Your task to perform on an android device: turn off translation in the chrome app Image 0: 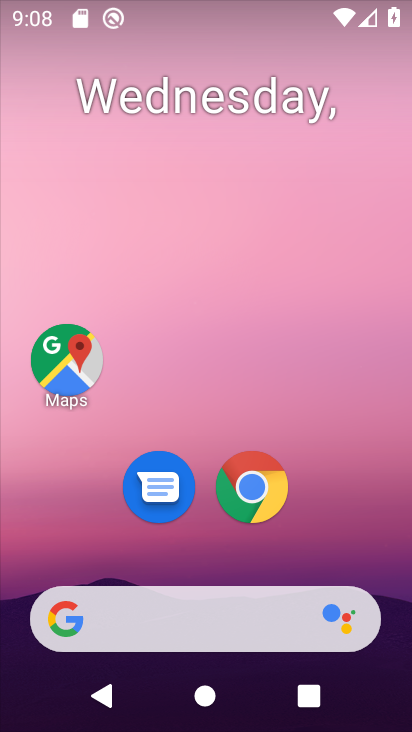
Step 0: click (245, 495)
Your task to perform on an android device: turn off translation in the chrome app Image 1: 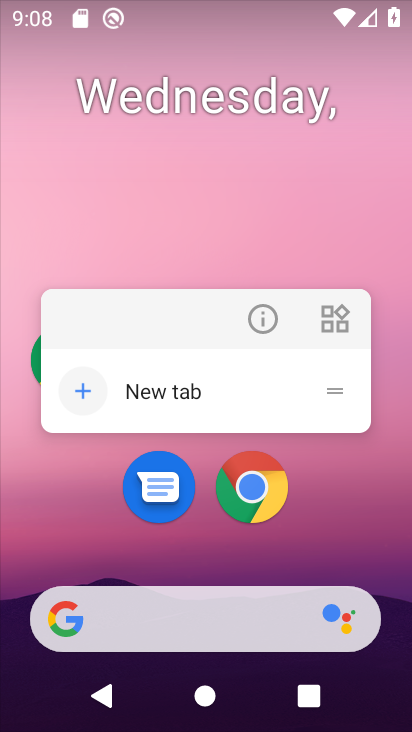
Step 1: click (245, 495)
Your task to perform on an android device: turn off translation in the chrome app Image 2: 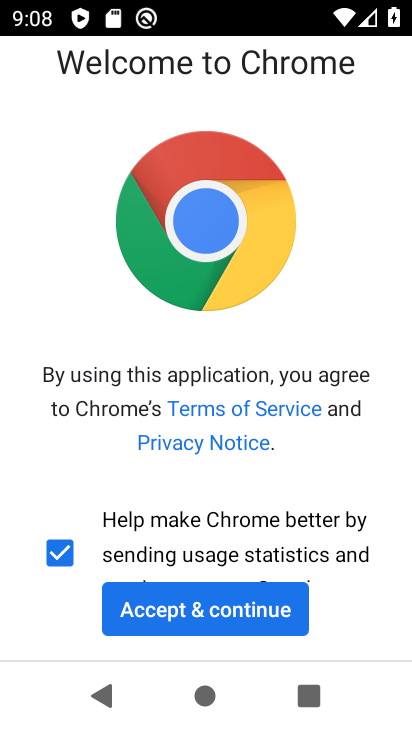
Step 2: click (255, 601)
Your task to perform on an android device: turn off translation in the chrome app Image 3: 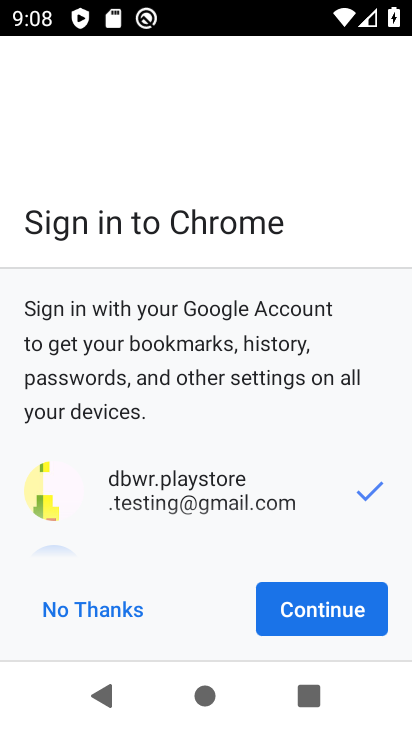
Step 3: click (309, 618)
Your task to perform on an android device: turn off translation in the chrome app Image 4: 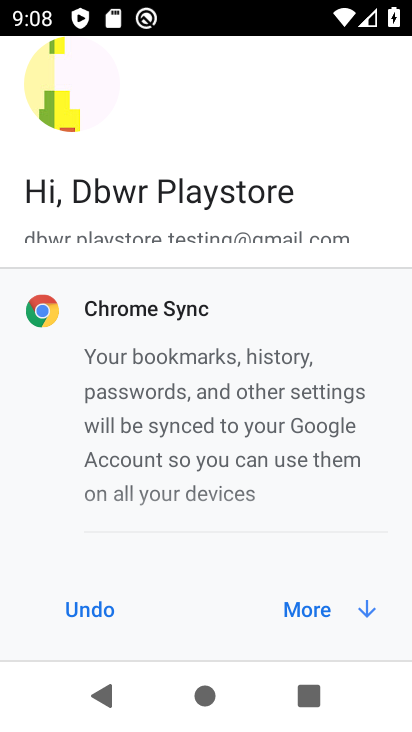
Step 4: click (316, 621)
Your task to perform on an android device: turn off translation in the chrome app Image 5: 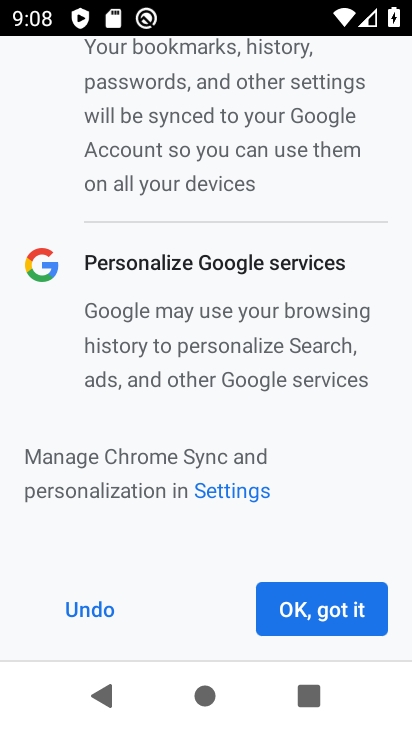
Step 5: click (316, 621)
Your task to perform on an android device: turn off translation in the chrome app Image 6: 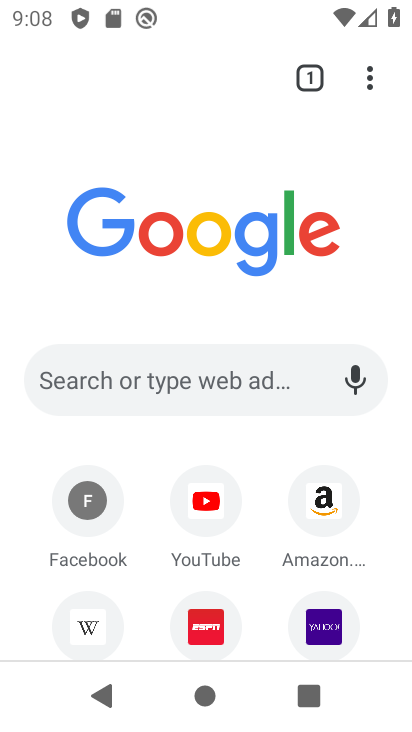
Step 6: click (367, 86)
Your task to perform on an android device: turn off translation in the chrome app Image 7: 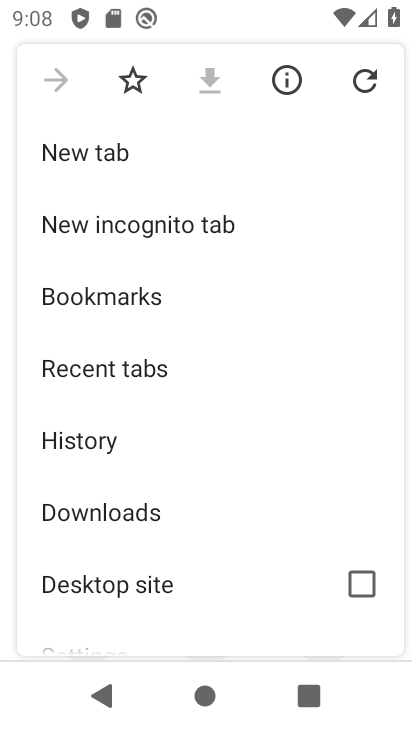
Step 7: drag from (107, 594) to (129, 284)
Your task to perform on an android device: turn off translation in the chrome app Image 8: 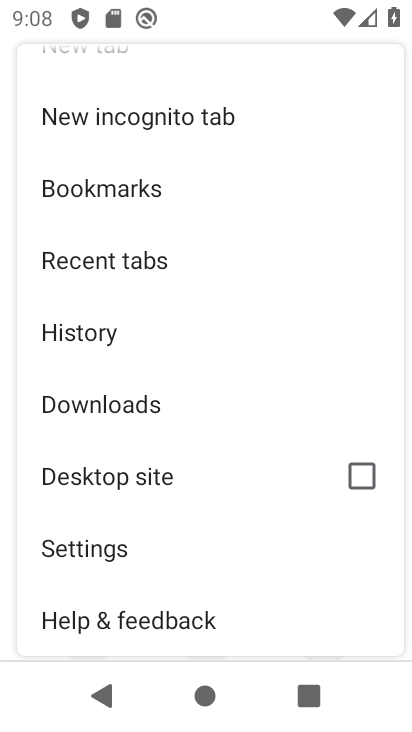
Step 8: click (99, 557)
Your task to perform on an android device: turn off translation in the chrome app Image 9: 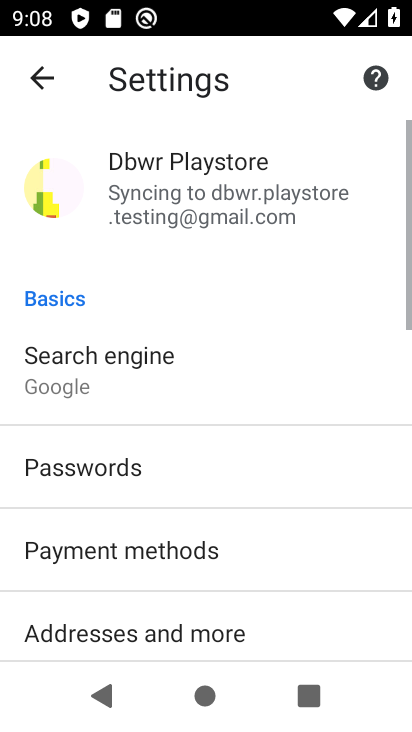
Step 9: drag from (168, 612) to (229, 387)
Your task to perform on an android device: turn off translation in the chrome app Image 10: 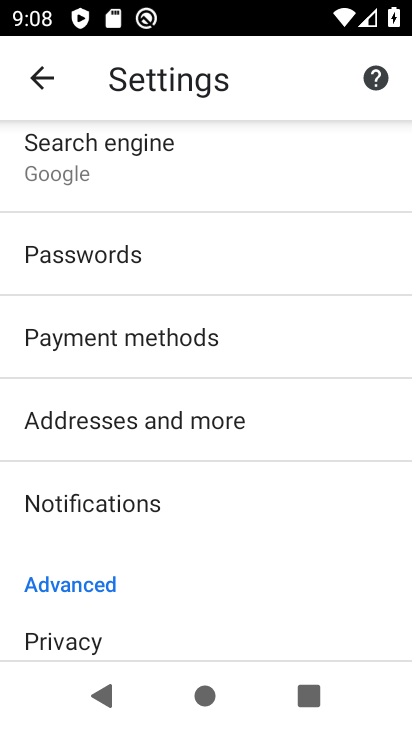
Step 10: drag from (153, 606) to (178, 293)
Your task to perform on an android device: turn off translation in the chrome app Image 11: 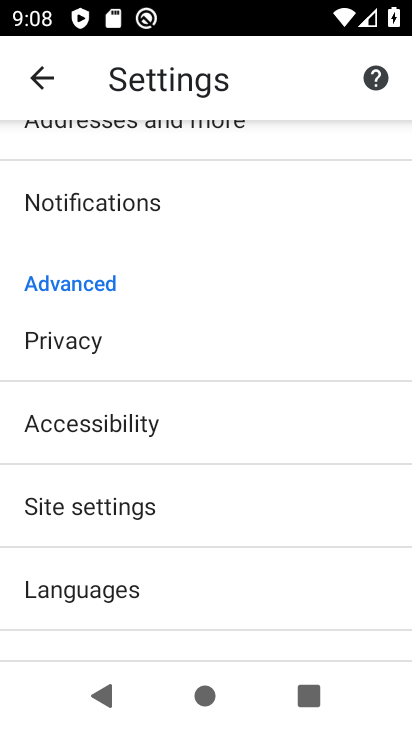
Step 11: click (153, 590)
Your task to perform on an android device: turn off translation in the chrome app Image 12: 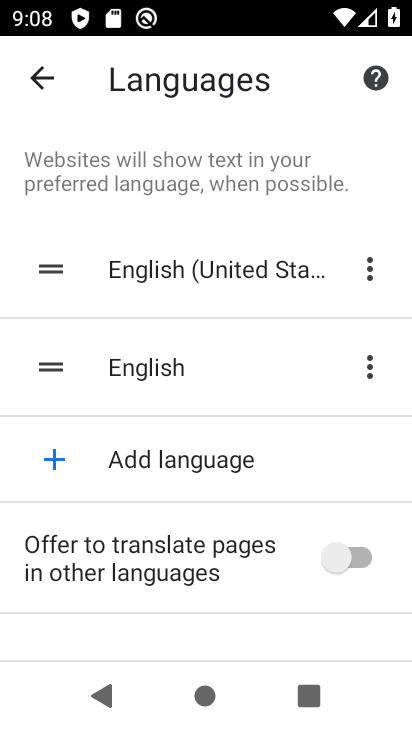
Step 12: task complete